Your task to perform on an android device: turn on airplane mode Image 0: 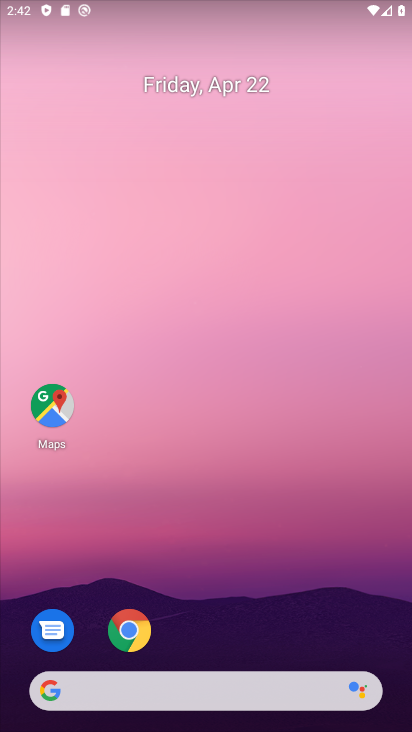
Step 0: drag from (285, 55) to (280, 627)
Your task to perform on an android device: turn on airplane mode Image 1: 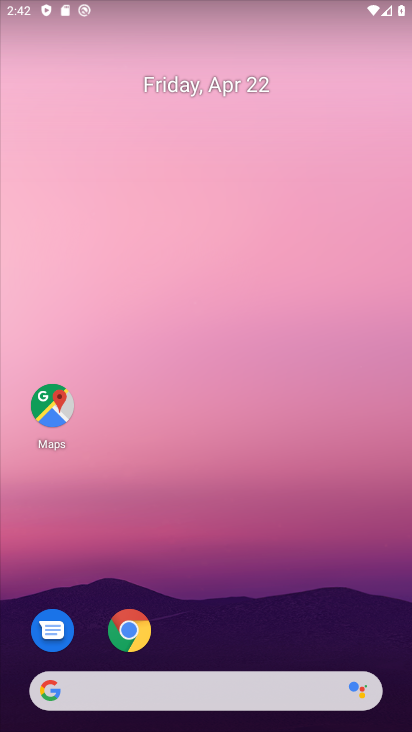
Step 1: drag from (279, 7) to (280, 504)
Your task to perform on an android device: turn on airplane mode Image 2: 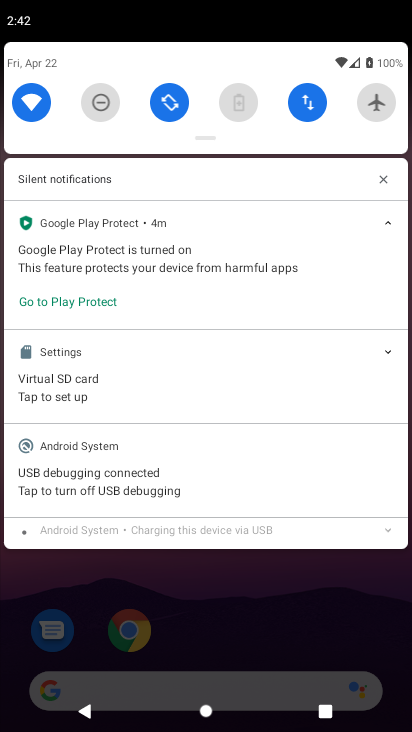
Step 2: drag from (278, 21) to (266, 441)
Your task to perform on an android device: turn on airplane mode Image 3: 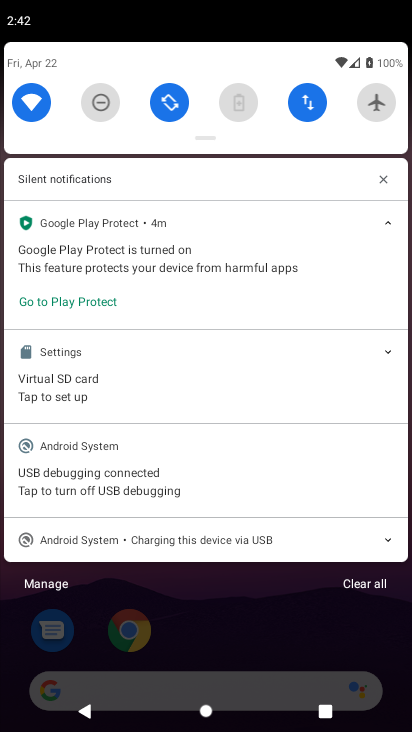
Step 3: click (379, 100)
Your task to perform on an android device: turn on airplane mode Image 4: 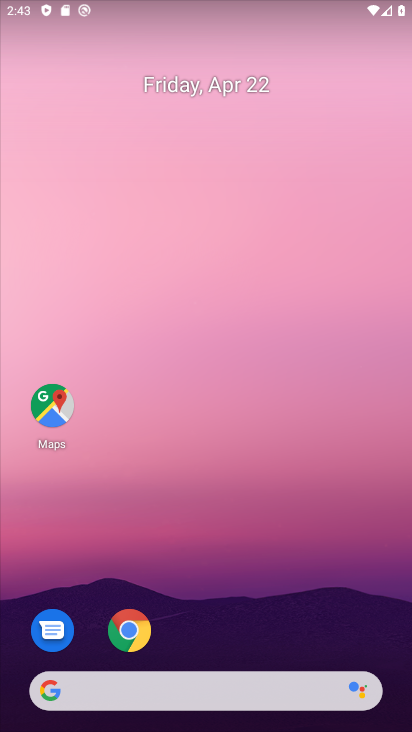
Step 4: task complete